Your task to perform on an android device: turn on improve location accuracy Image 0: 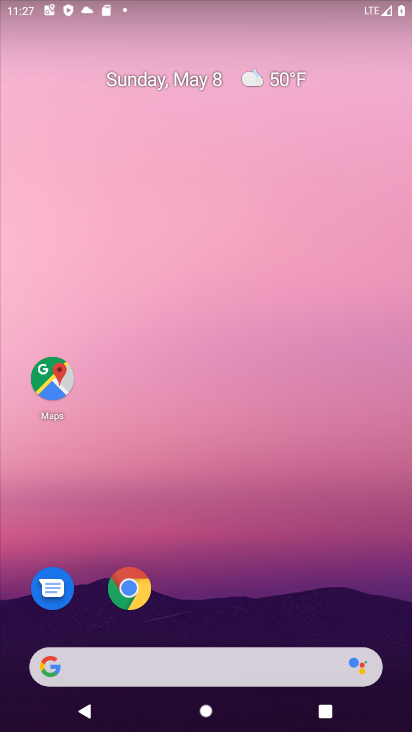
Step 0: drag from (239, 568) to (203, 104)
Your task to perform on an android device: turn on improve location accuracy Image 1: 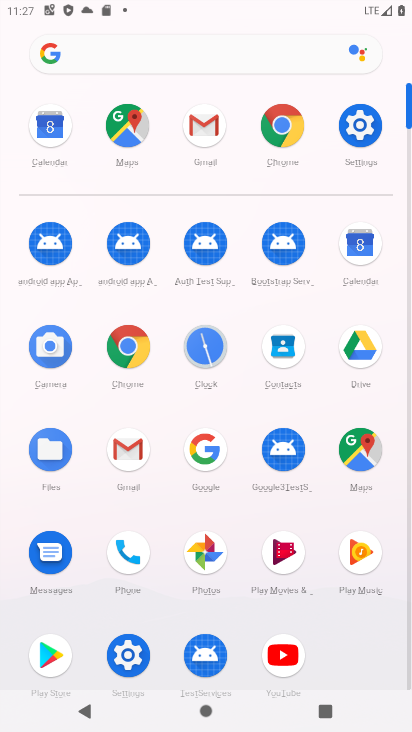
Step 1: click (362, 126)
Your task to perform on an android device: turn on improve location accuracy Image 2: 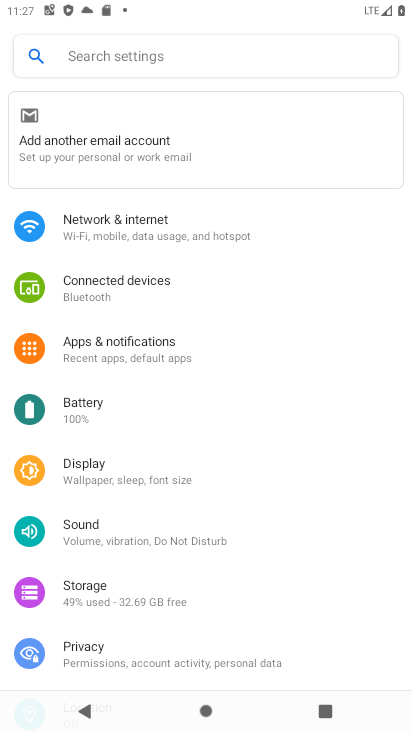
Step 2: drag from (197, 598) to (137, 98)
Your task to perform on an android device: turn on improve location accuracy Image 3: 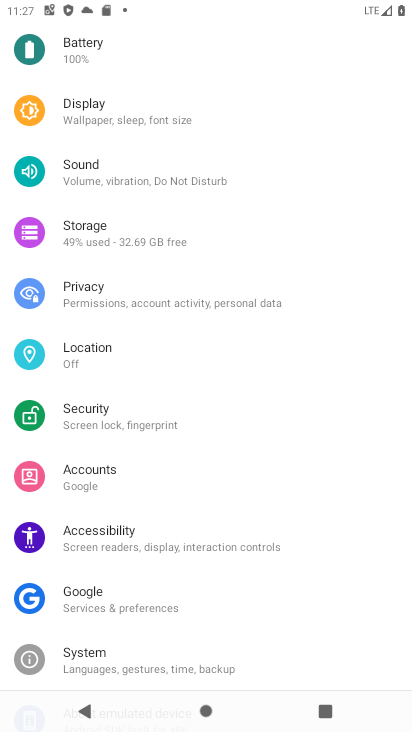
Step 3: click (116, 348)
Your task to perform on an android device: turn on improve location accuracy Image 4: 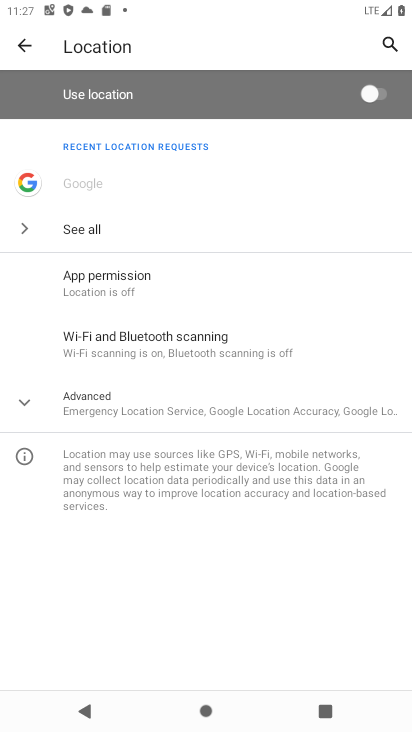
Step 4: click (150, 407)
Your task to perform on an android device: turn on improve location accuracy Image 5: 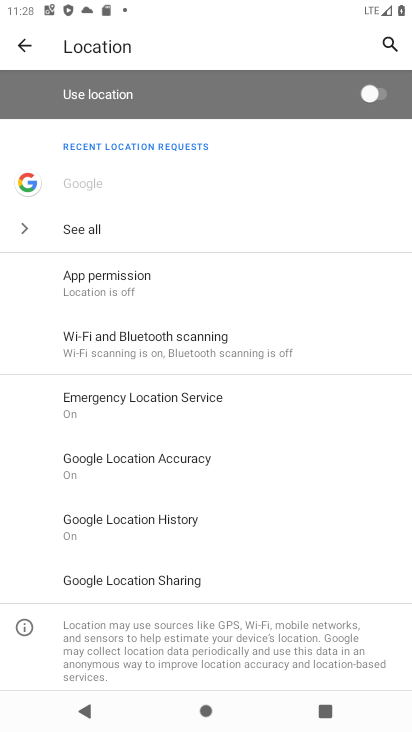
Step 5: click (174, 465)
Your task to perform on an android device: turn on improve location accuracy Image 6: 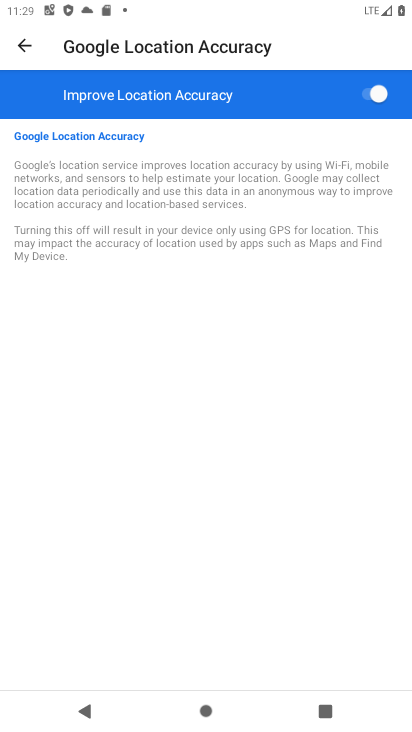
Step 6: task complete